Your task to perform on an android device: find photos in the google photos app Image 0: 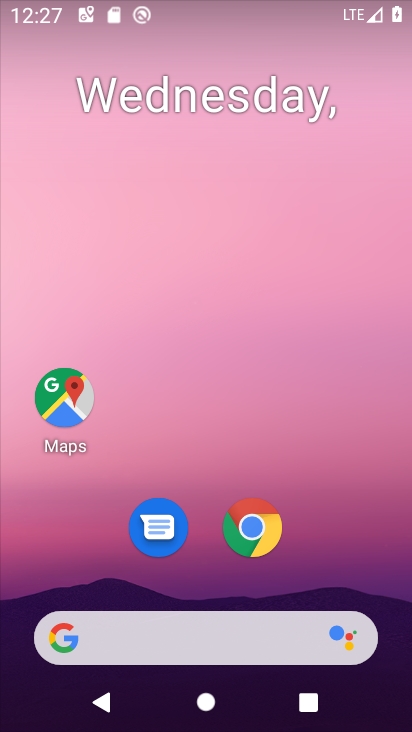
Step 0: drag from (312, 618) to (401, 531)
Your task to perform on an android device: find photos in the google photos app Image 1: 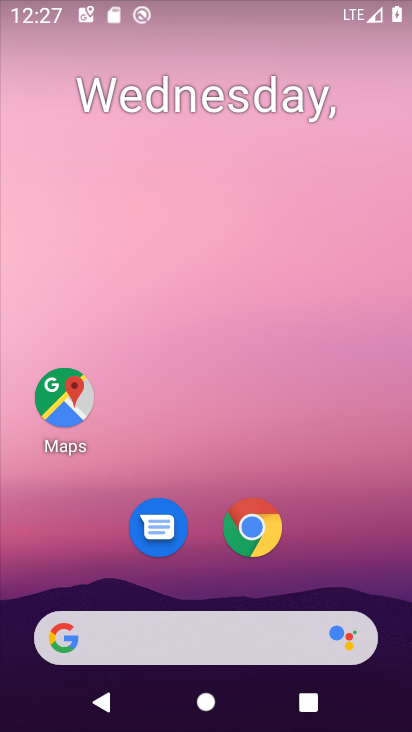
Step 1: drag from (296, 616) to (346, 69)
Your task to perform on an android device: find photos in the google photos app Image 2: 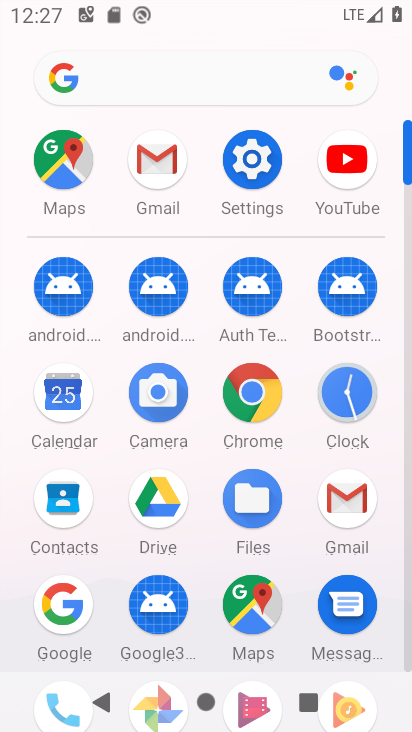
Step 2: drag from (284, 512) to (293, 181)
Your task to perform on an android device: find photos in the google photos app Image 3: 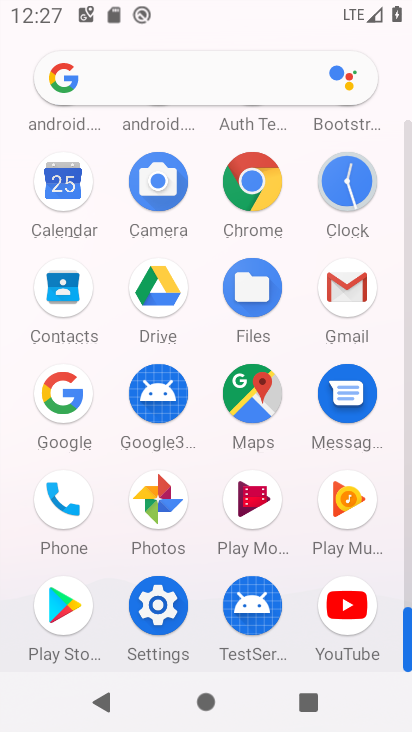
Step 3: click (143, 491)
Your task to perform on an android device: find photos in the google photos app Image 4: 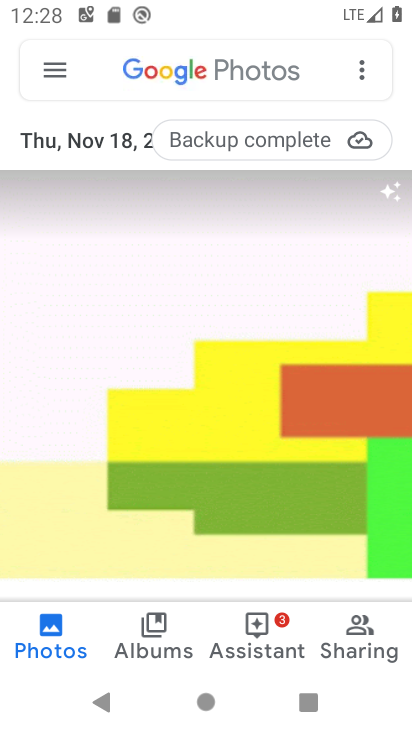
Step 4: task complete